Your task to perform on an android device: toggle notifications settings in the gmail app Image 0: 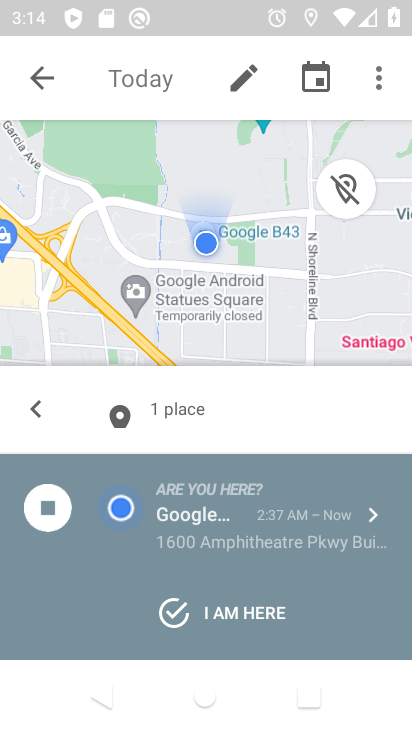
Step 0: press home button
Your task to perform on an android device: toggle notifications settings in the gmail app Image 1: 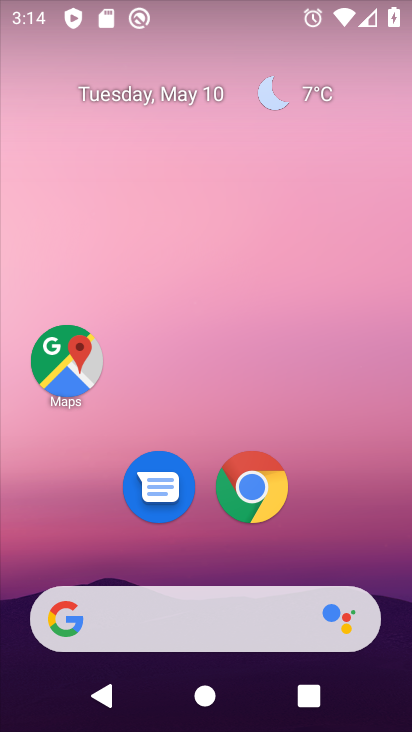
Step 1: drag from (316, 535) to (317, 169)
Your task to perform on an android device: toggle notifications settings in the gmail app Image 2: 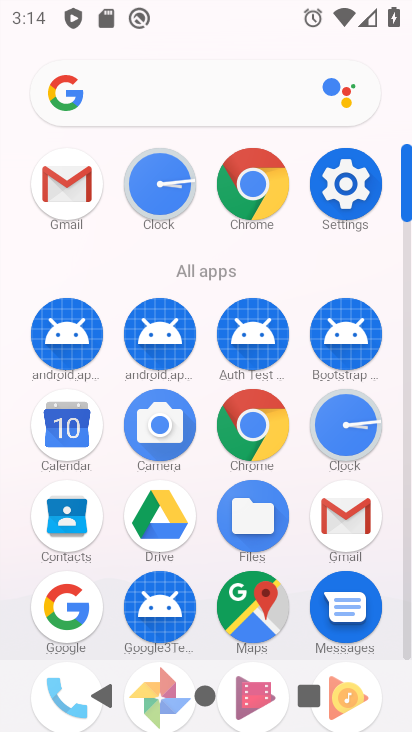
Step 2: click (346, 509)
Your task to perform on an android device: toggle notifications settings in the gmail app Image 3: 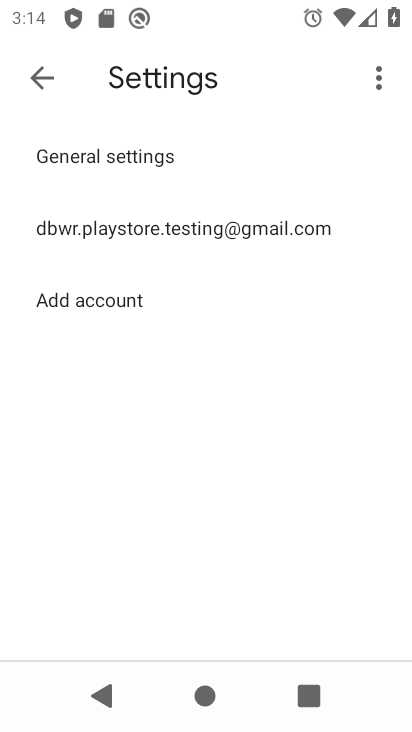
Step 3: click (125, 223)
Your task to perform on an android device: toggle notifications settings in the gmail app Image 4: 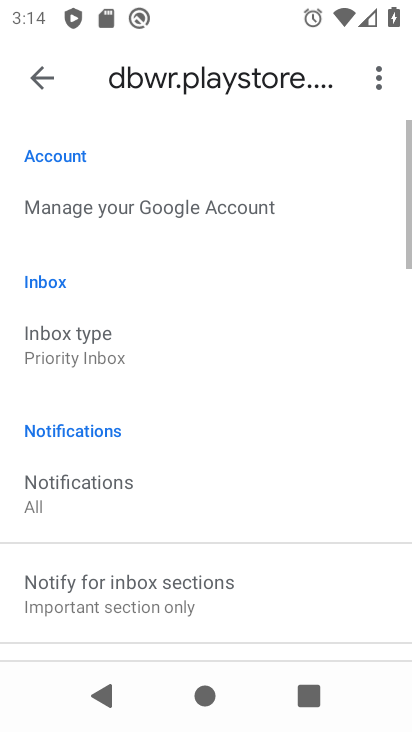
Step 4: drag from (248, 610) to (233, 252)
Your task to perform on an android device: toggle notifications settings in the gmail app Image 5: 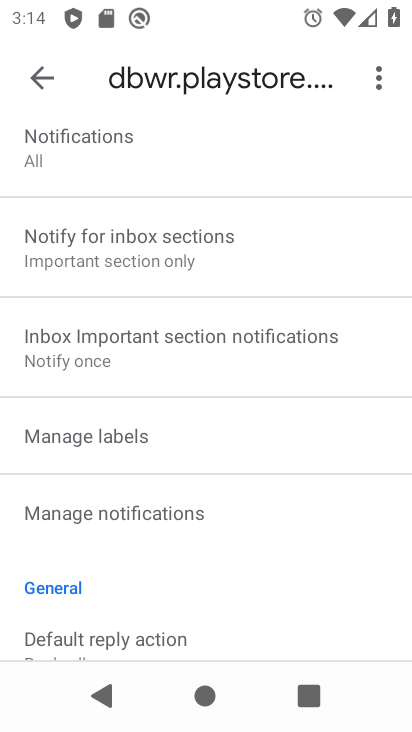
Step 5: click (96, 521)
Your task to perform on an android device: toggle notifications settings in the gmail app Image 6: 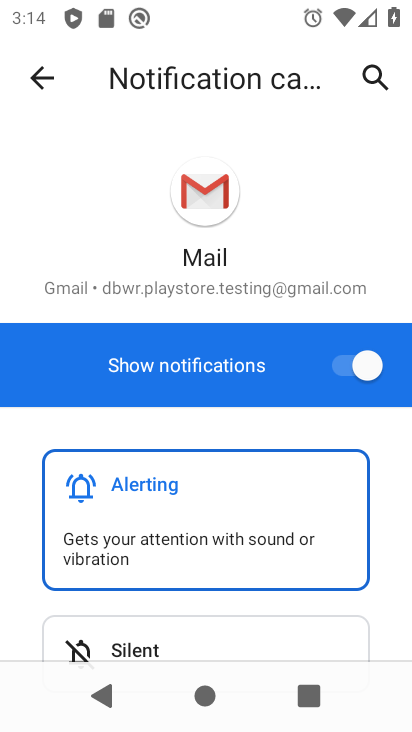
Step 6: drag from (192, 559) to (217, 211)
Your task to perform on an android device: toggle notifications settings in the gmail app Image 7: 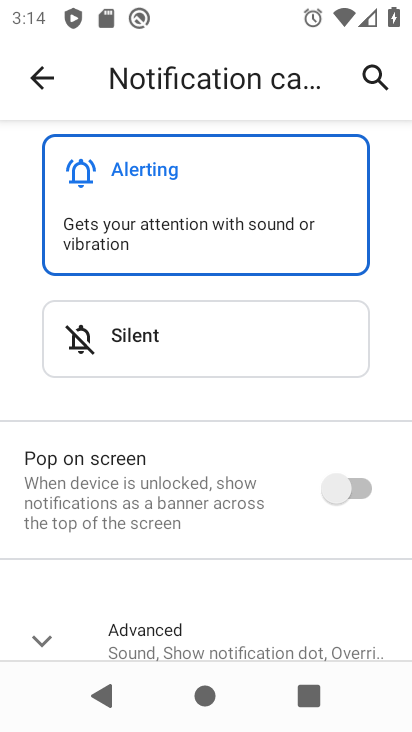
Step 7: drag from (226, 471) to (219, 693)
Your task to perform on an android device: toggle notifications settings in the gmail app Image 8: 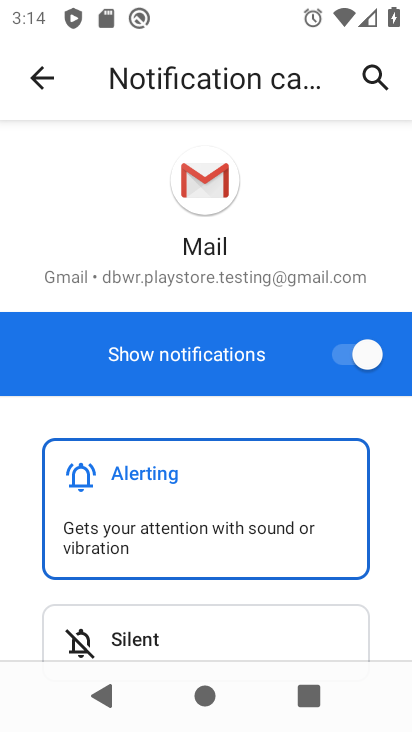
Step 8: click (342, 357)
Your task to perform on an android device: toggle notifications settings in the gmail app Image 9: 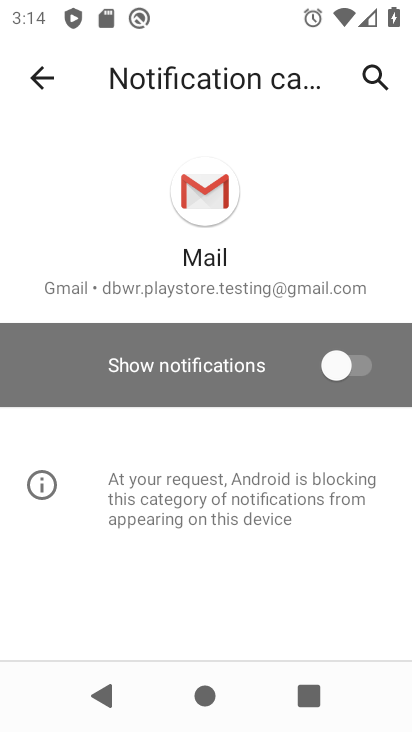
Step 9: task complete